Your task to perform on an android device: Open maps Image 0: 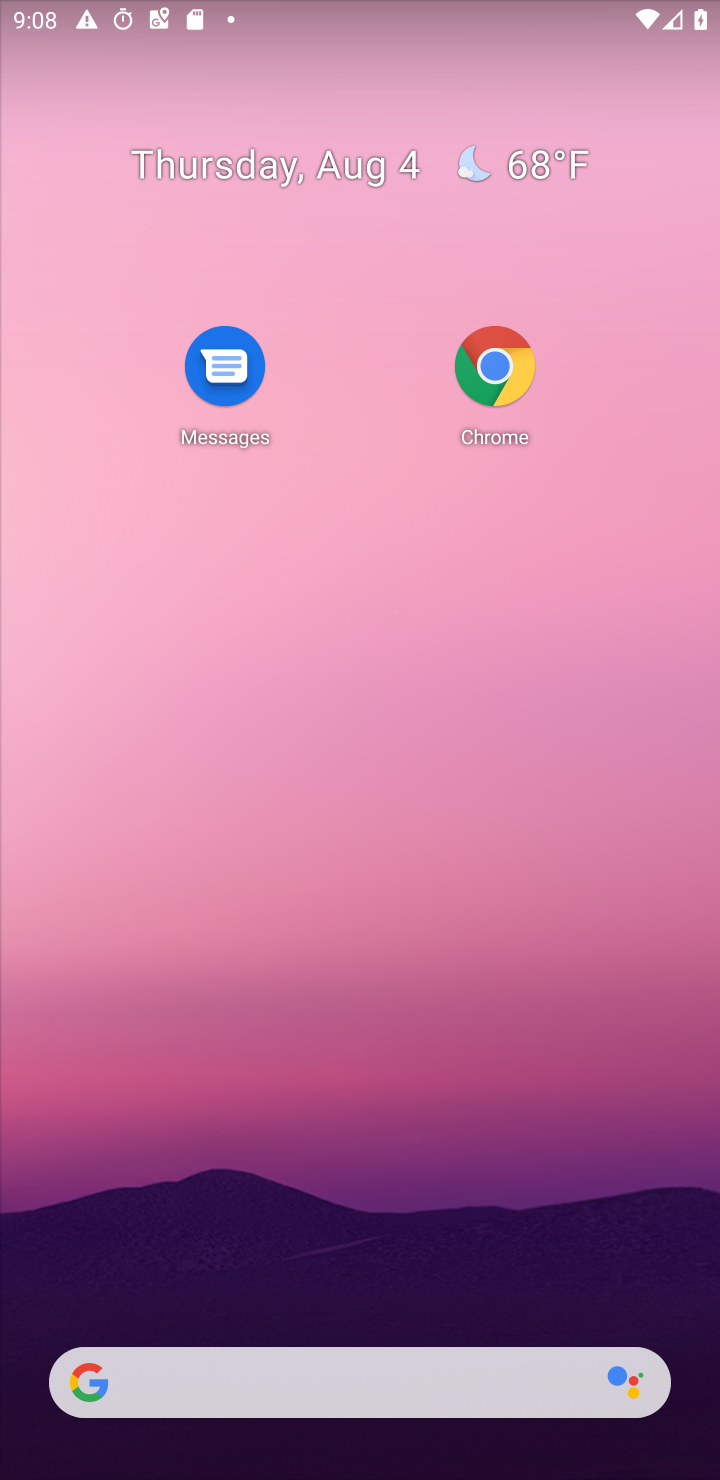
Step 0: drag from (459, 1414) to (362, 277)
Your task to perform on an android device: Open maps Image 1: 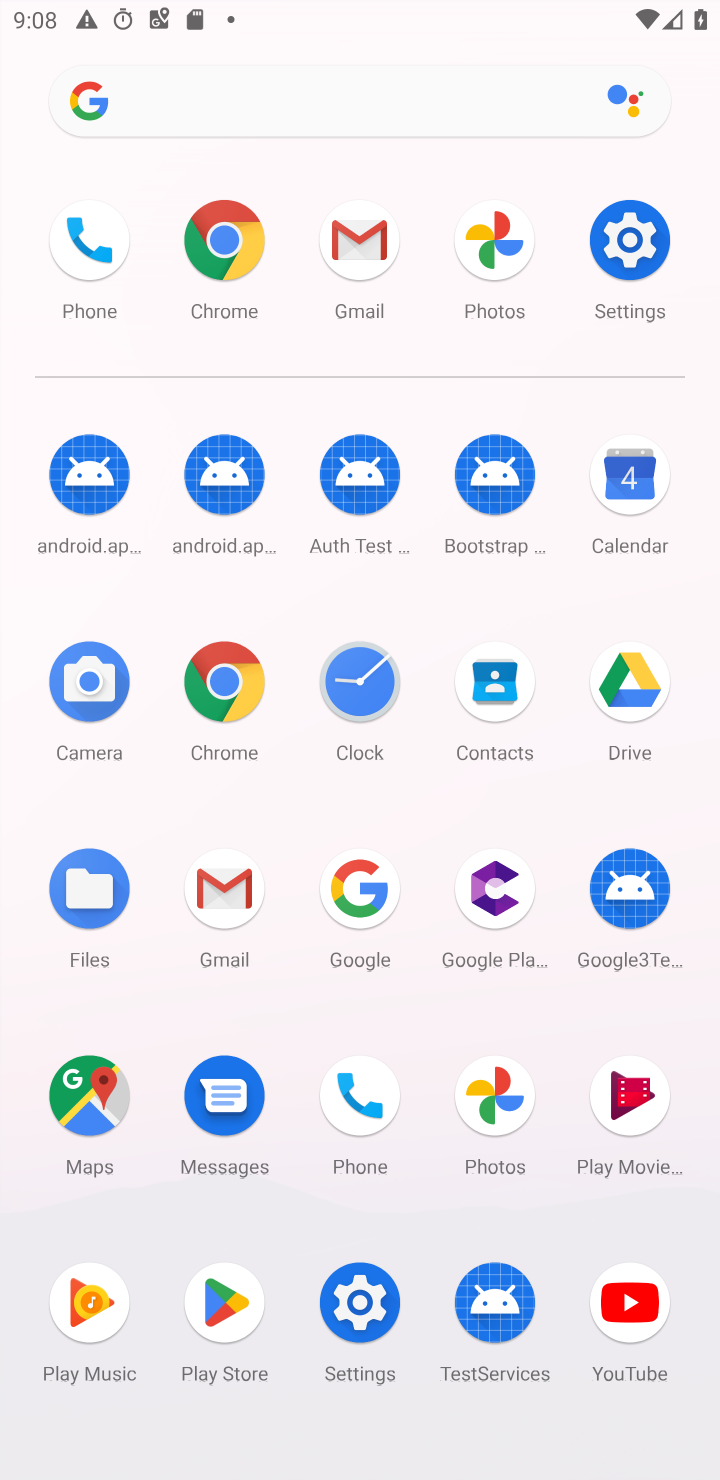
Step 1: click (87, 1060)
Your task to perform on an android device: Open maps Image 2: 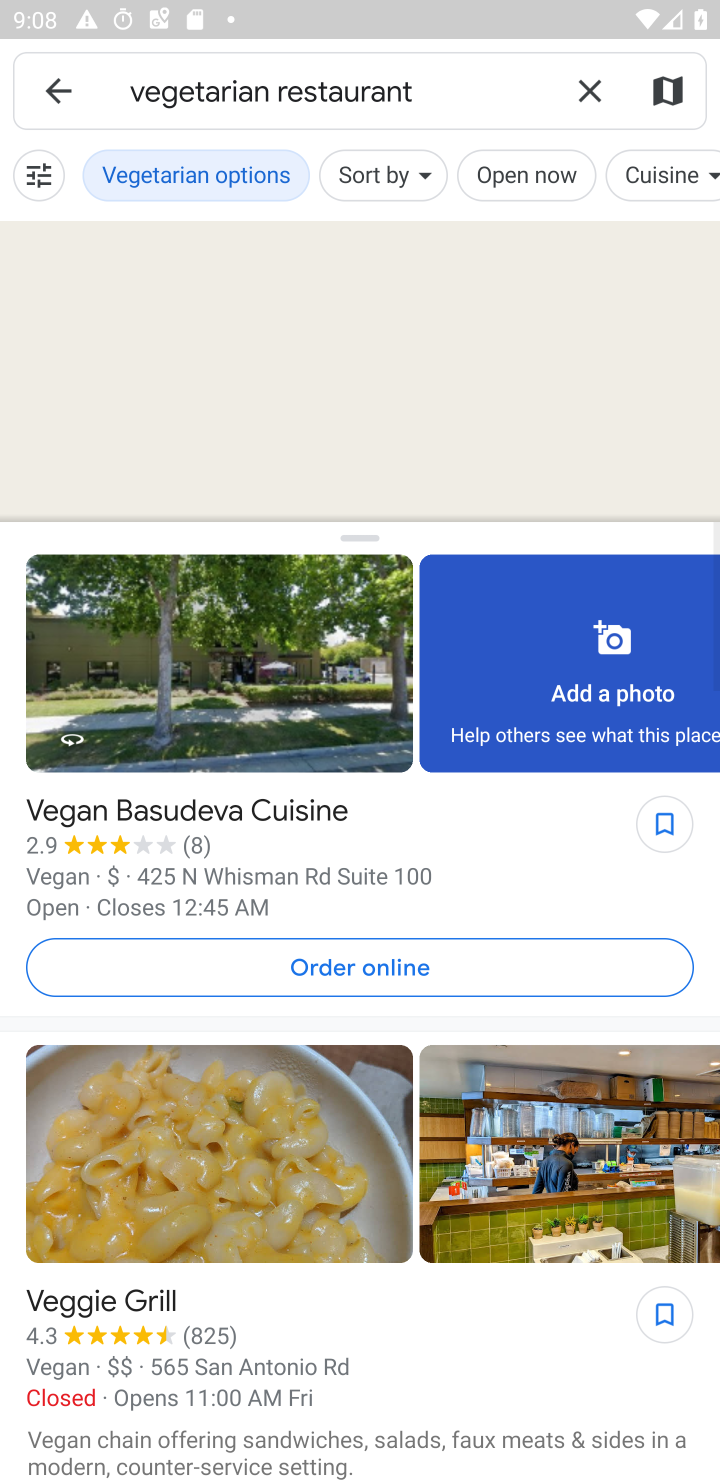
Step 2: click (36, 64)
Your task to perform on an android device: Open maps Image 3: 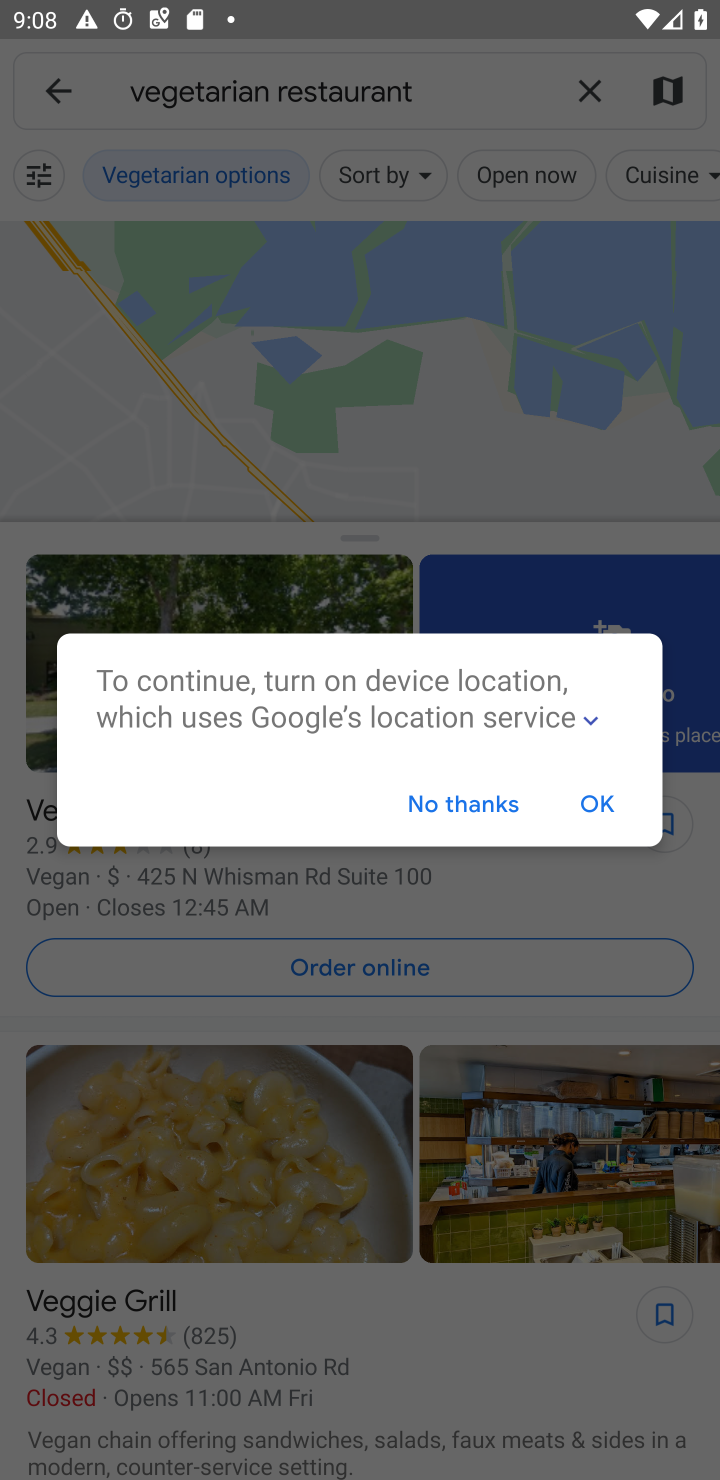
Step 3: click (456, 792)
Your task to perform on an android device: Open maps Image 4: 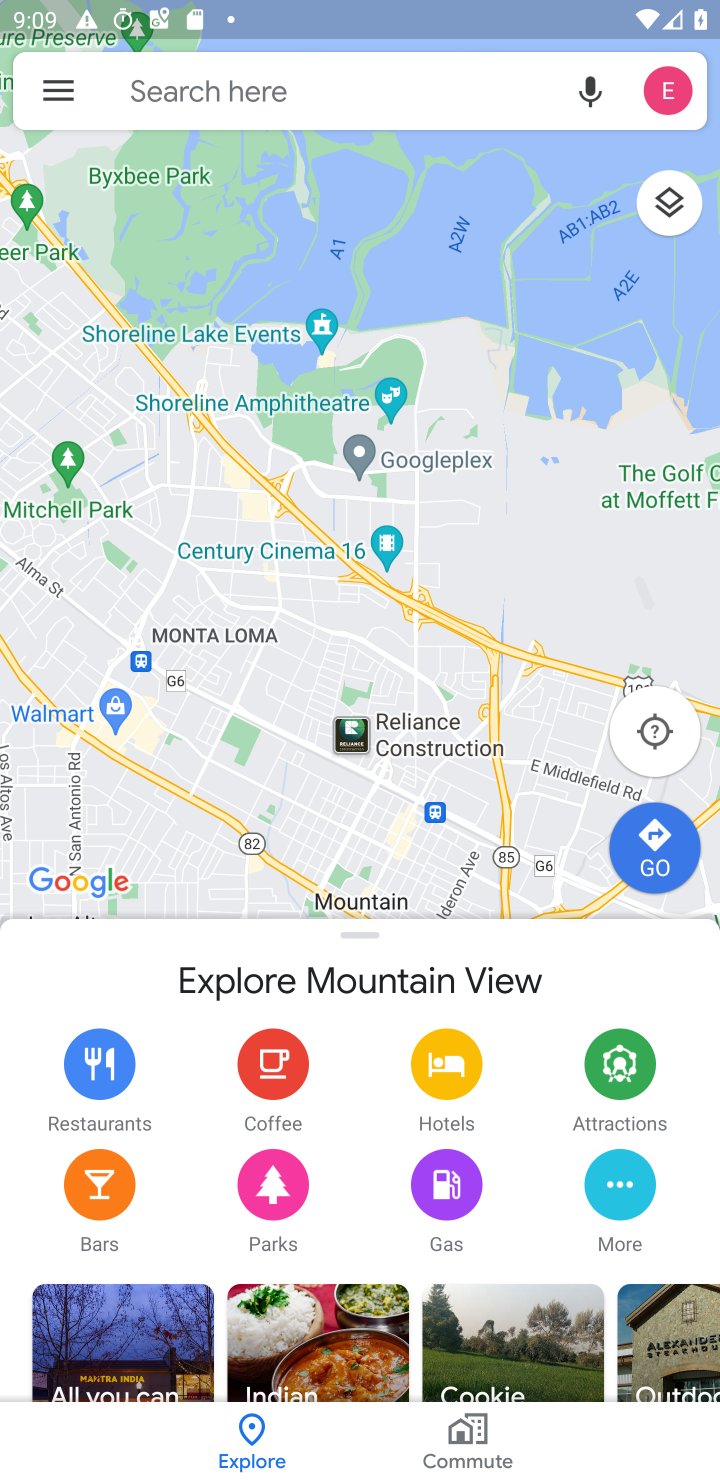
Step 4: task complete